Your task to perform on an android device: check out phone information Image 0: 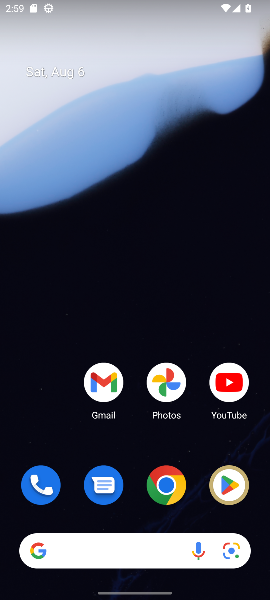
Step 0: press home button
Your task to perform on an android device: check out phone information Image 1: 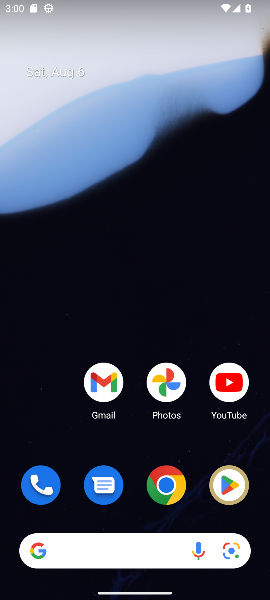
Step 1: drag from (129, 446) to (167, 31)
Your task to perform on an android device: check out phone information Image 2: 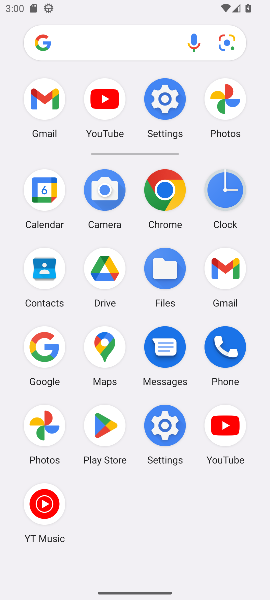
Step 2: click (164, 95)
Your task to perform on an android device: check out phone information Image 3: 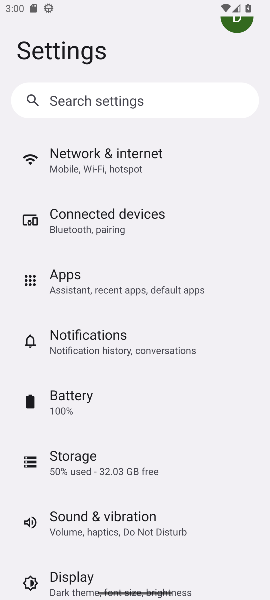
Step 3: drag from (133, 535) to (150, 63)
Your task to perform on an android device: check out phone information Image 4: 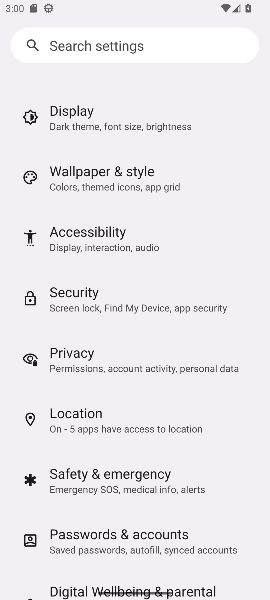
Step 4: drag from (113, 511) to (129, 48)
Your task to perform on an android device: check out phone information Image 5: 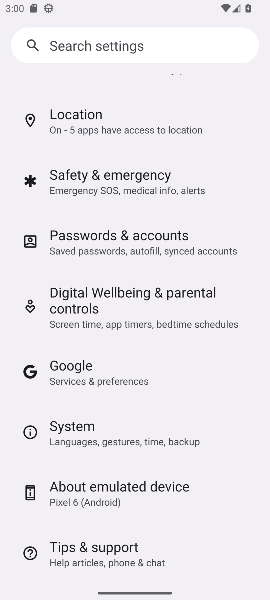
Step 5: click (138, 489)
Your task to perform on an android device: check out phone information Image 6: 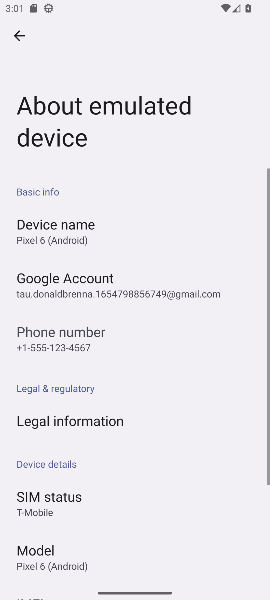
Step 6: task complete